Your task to perform on an android device: What's the weather today? Image 0: 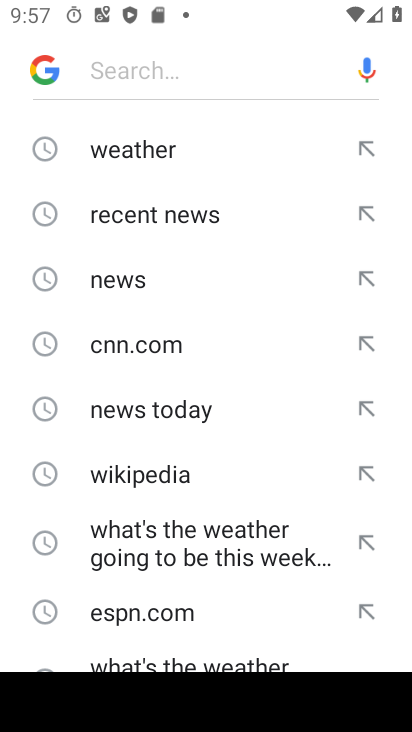
Step 0: click (125, 153)
Your task to perform on an android device: What's the weather today? Image 1: 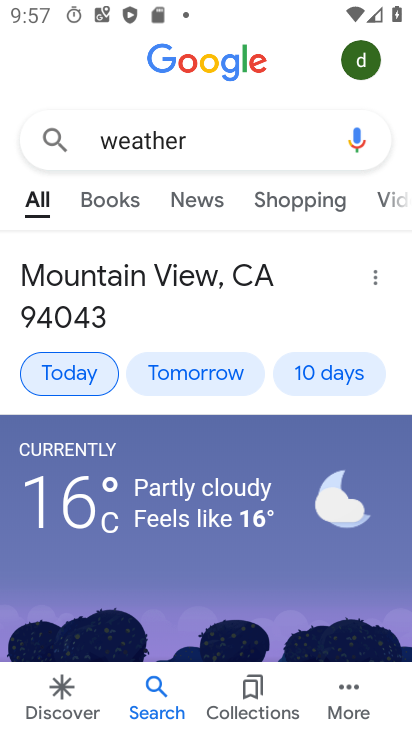
Step 1: task complete